Your task to perform on an android device: open app "eBay: The shopping marketplace" (install if not already installed) and go to login screen Image 0: 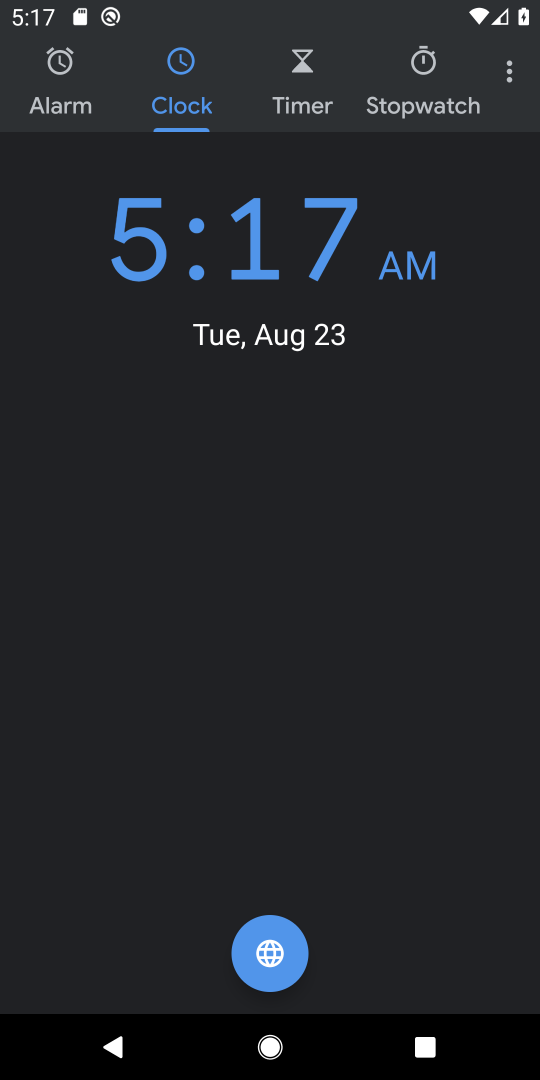
Step 0: press home button
Your task to perform on an android device: open app "eBay: The shopping marketplace" (install if not already installed) and go to login screen Image 1: 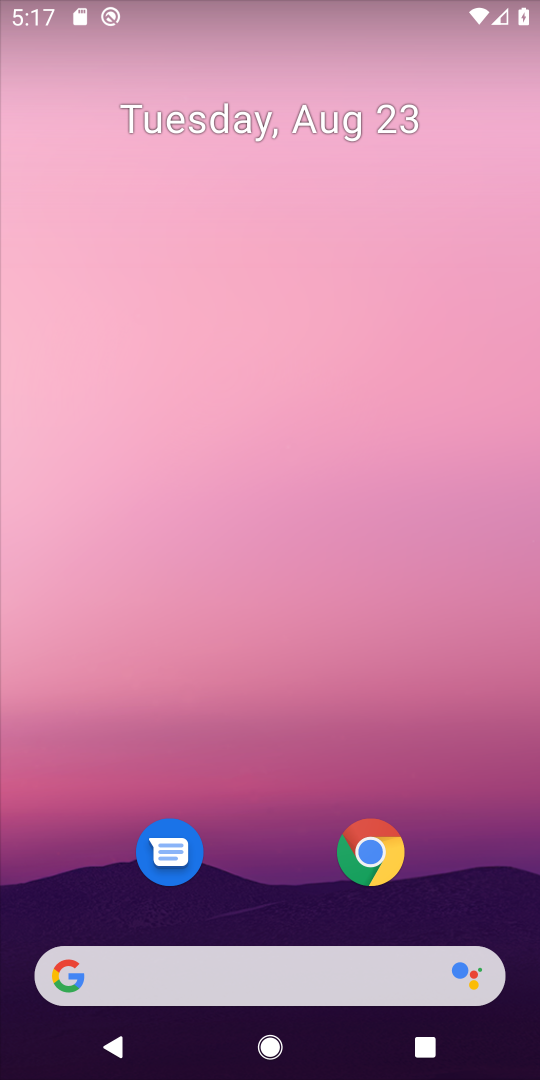
Step 1: drag from (159, 977) to (317, 74)
Your task to perform on an android device: open app "eBay: The shopping marketplace" (install if not already installed) and go to login screen Image 2: 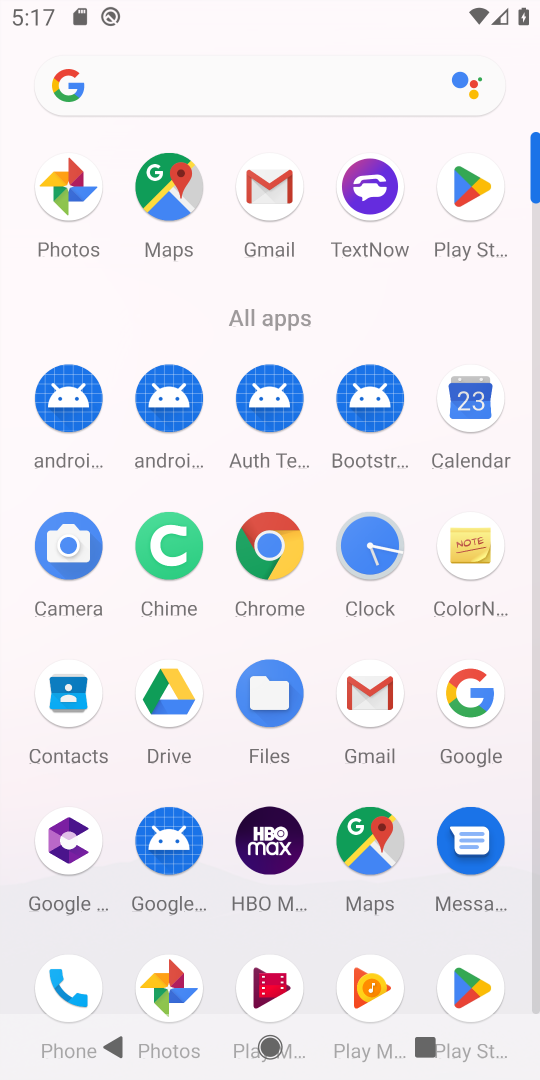
Step 2: click (475, 186)
Your task to perform on an android device: open app "eBay: The shopping marketplace" (install if not already installed) and go to login screen Image 3: 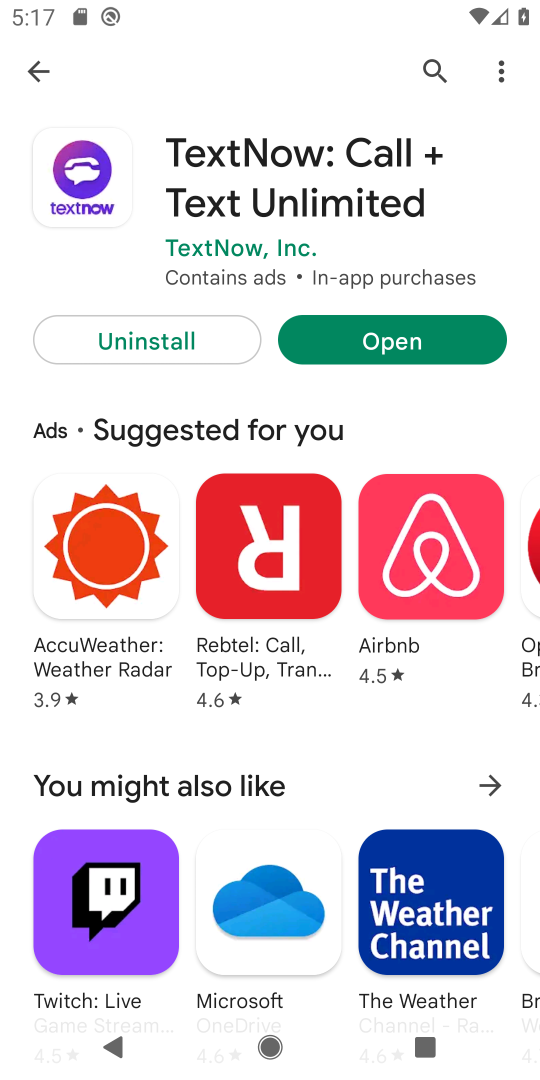
Step 3: press back button
Your task to perform on an android device: open app "eBay: The shopping marketplace" (install if not already installed) and go to login screen Image 4: 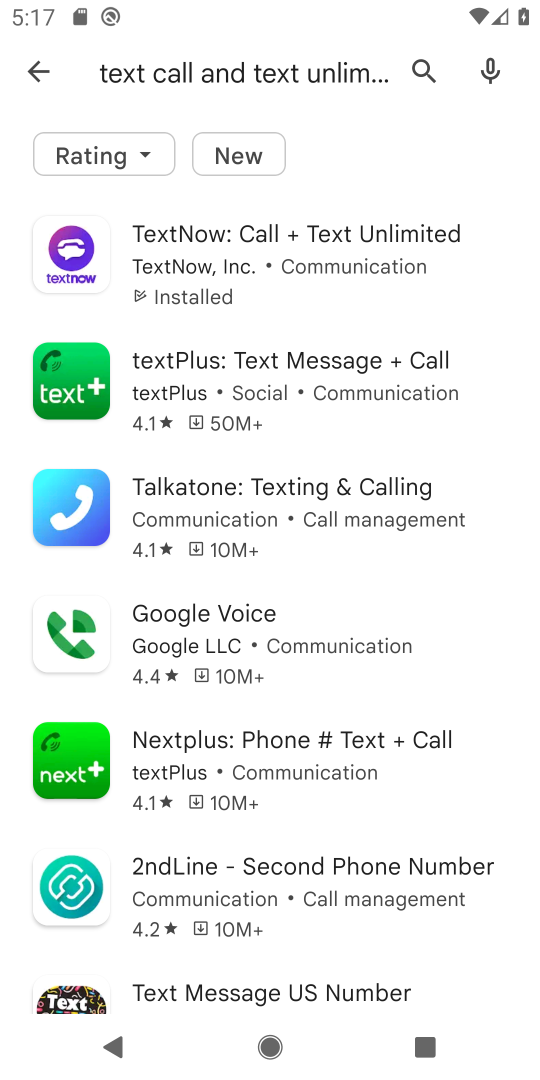
Step 4: press back button
Your task to perform on an android device: open app "eBay: The shopping marketplace" (install if not already installed) and go to login screen Image 5: 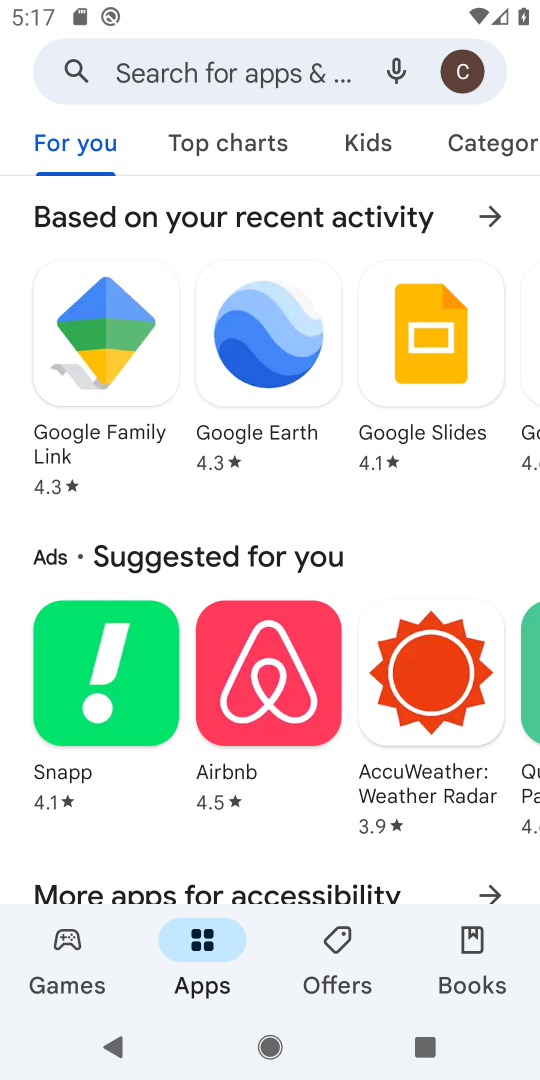
Step 5: click (239, 61)
Your task to perform on an android device: open app "eBay: The shopping marketplace" (install if not already installed) and go to login screen Image 6: 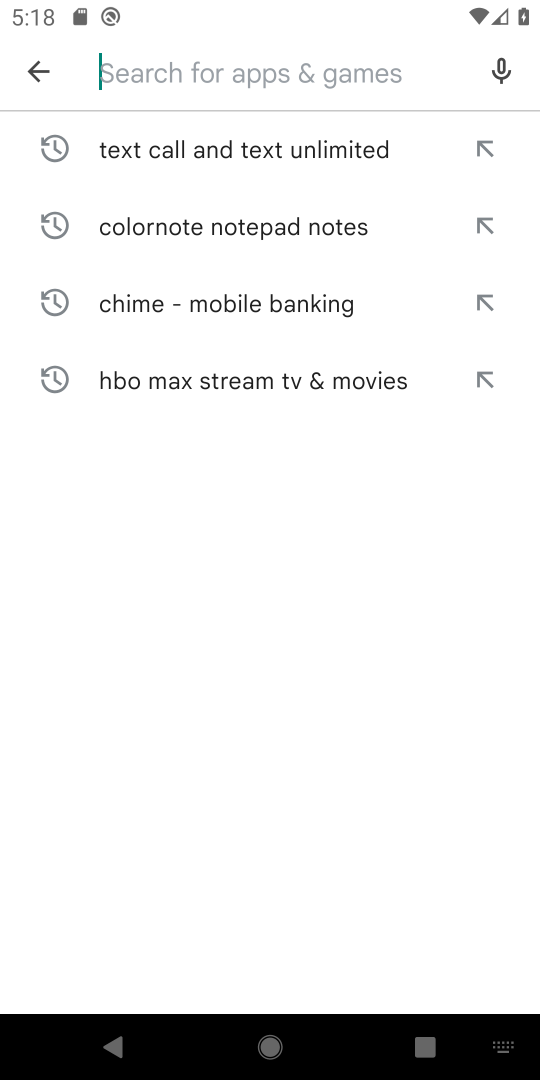
Step 6: type "eBay; The shopping marketplace"
Your task to perform on an android device: open app "eBay: The shopping marketplace" (install if not already installed) and go to login screen Image 7: 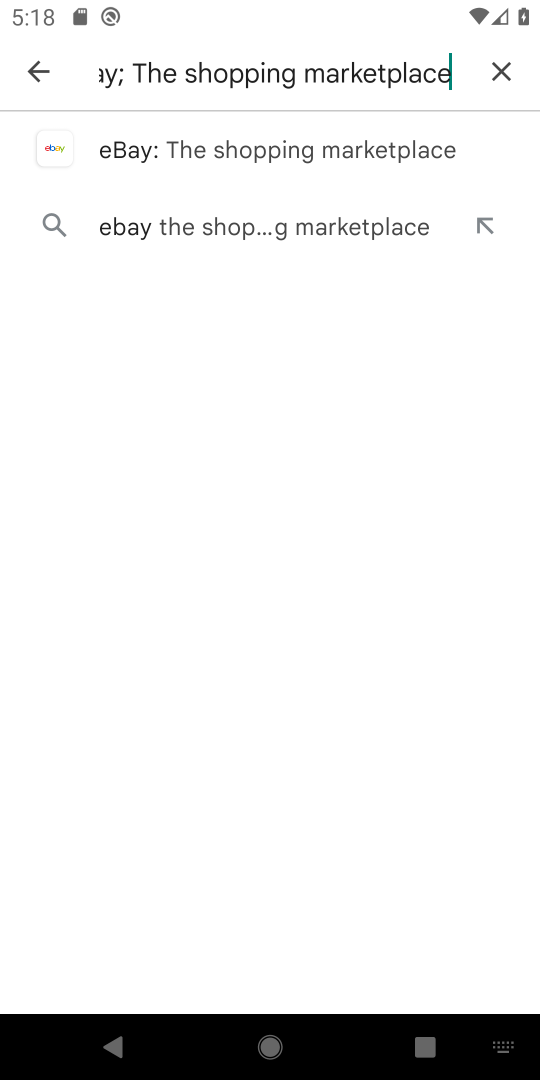
Step 7: click (249, 168)
Your task to perform on an android device: open app "eBay: The shopping marketplace" (install if not already installed) and go to login screen Image 8: 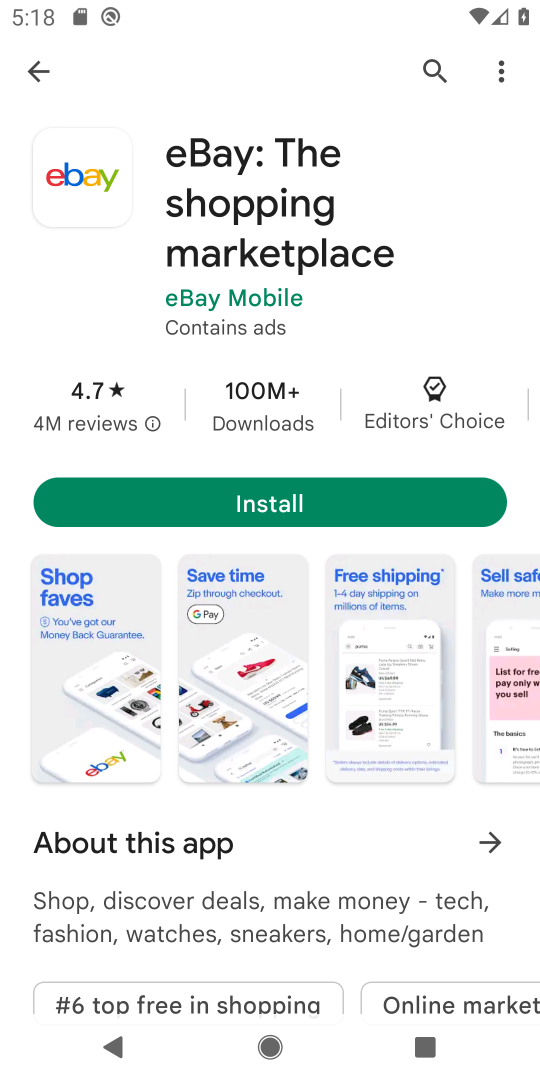
Step 8: click (302, 502)
Your task to perform on an android device: open app "eBay: The shopping marketplace" (install if not already installed) and go to login screen Image 9: 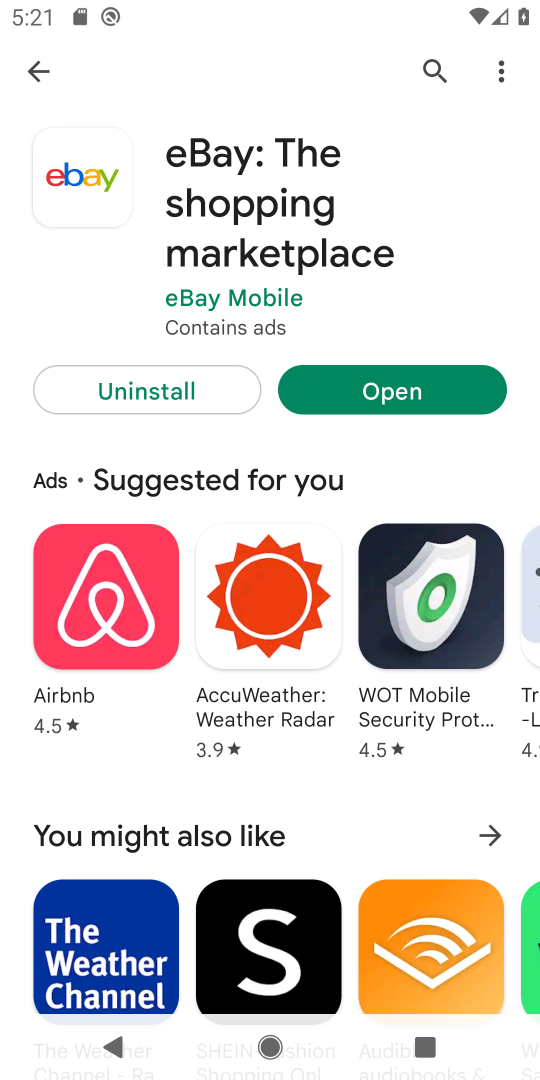
Step 9: click (400, 387)
Your task to perform on an android device: open app "eBay: The shopping marketplace" (install if not already installed) and go to login screen Image 10: 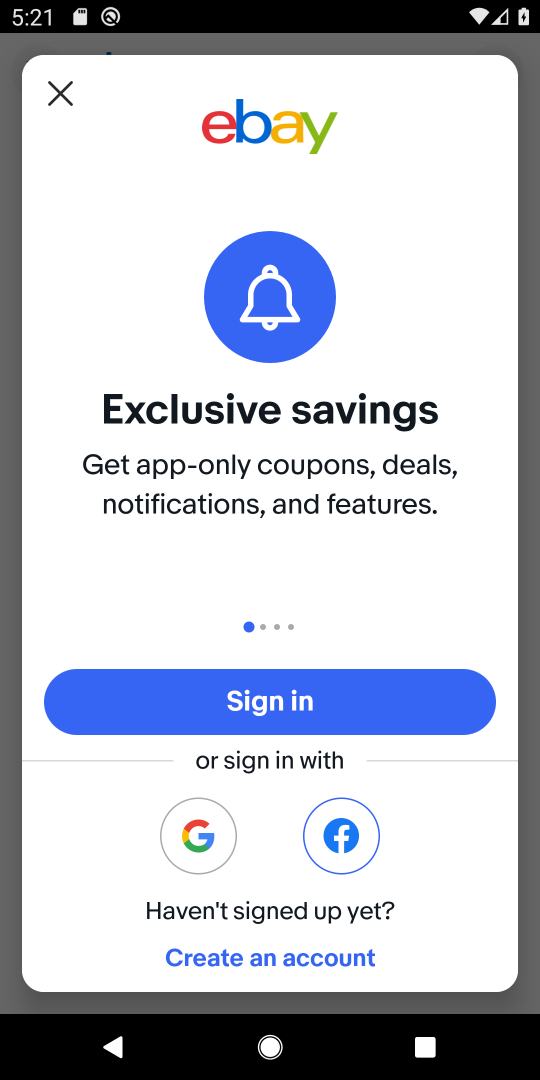
Step 10: click (284, 708)
Your task to perform on an android device: open app "eBay: The shopping marketplace" (install if not already installed) and go to login screen Image 11: 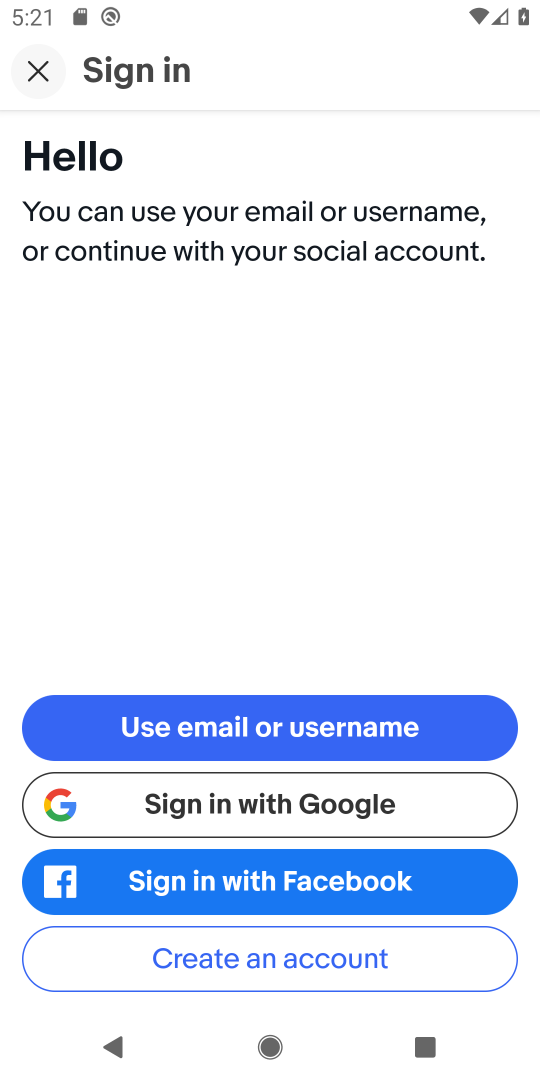
Step 11: task complete